Your task to perform on an android device: delete the emails in spam in the gmail app Image 0: 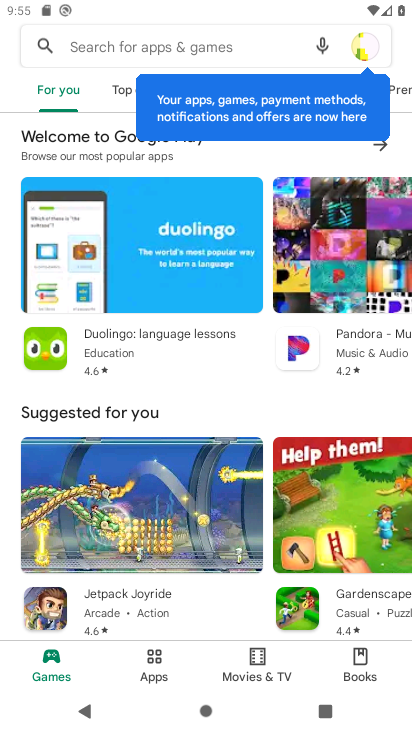
Step 0: press home button
Your task to perform on an android device: delete the emails in spam in the gmail app Image 1: 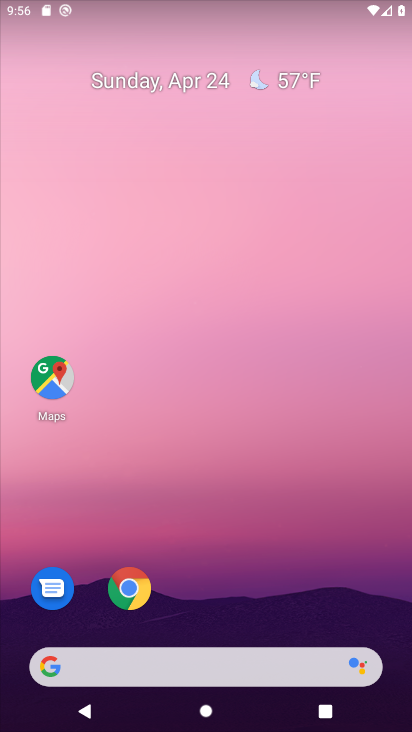
Step 1: drag from (295, 584) to (340, 50)
Your task to perform on an android device: delete the emails in spam in the gmail app Image 2: 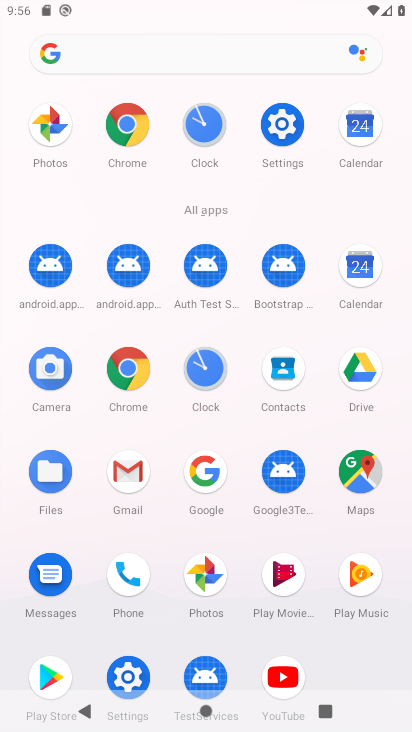
Step 2: click (128, 476)
Your task to perform on an android device: delete the emails in spam in the gmail app Image 3: 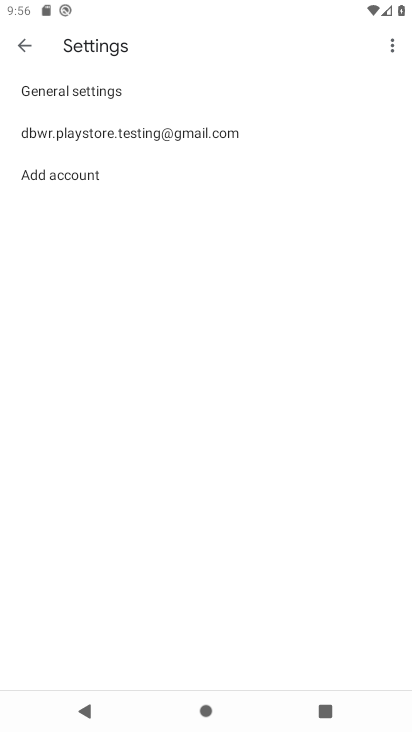
Step 3: click (30, 45)
Your task to perform on an android device: delete the emails in spam in the gmail app Image 4: 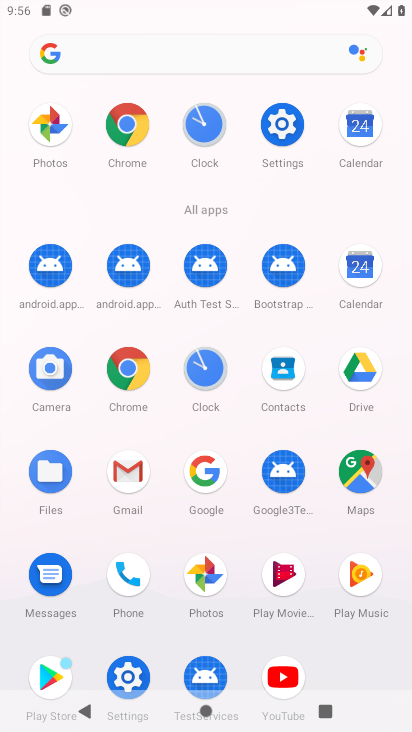
Step 4: click (127, 469)
Your task to perform on an android device: delete the emails in spam in the gmail app Image 5: 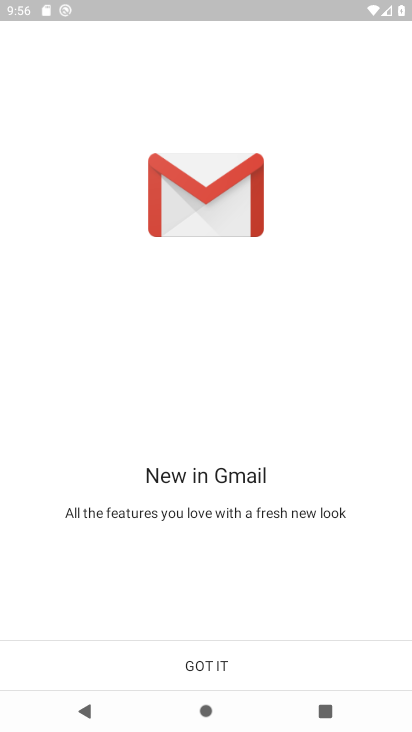
Step 5: click (209, 657)
Your task to perform on an android device: delete the emails in spam in the gmail app Image 6: 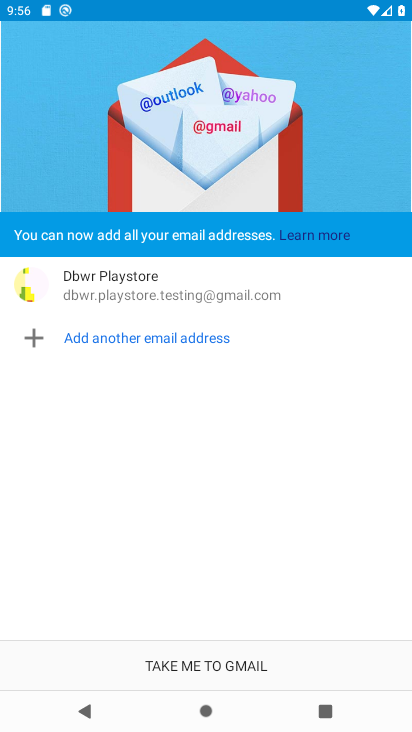
Step 6: click (209, 666)
Your task to perform on an android device: delete the emails in spam in the gmail app Image 7: 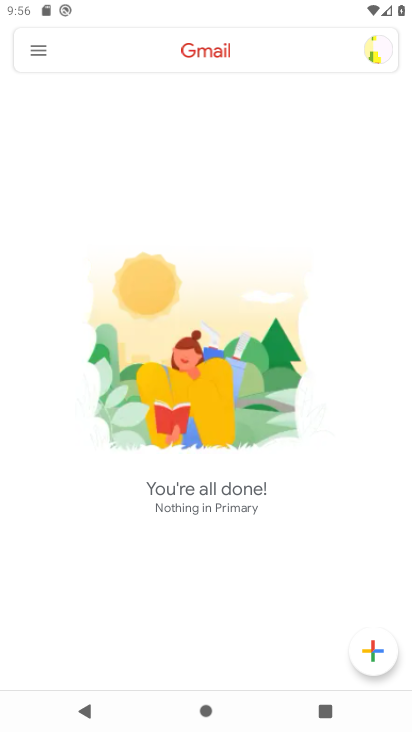
Step 7: click (43, 54)
Your task to perform on an android device: delete the emails in spam in the gmail app Image 8: 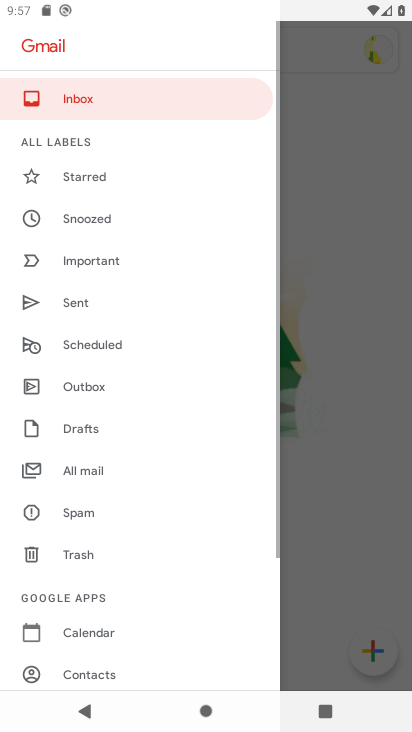
Step 8: click (91, 522)
Your task to perform on an android device: delete the emails in spam in the gmail app Image 9: 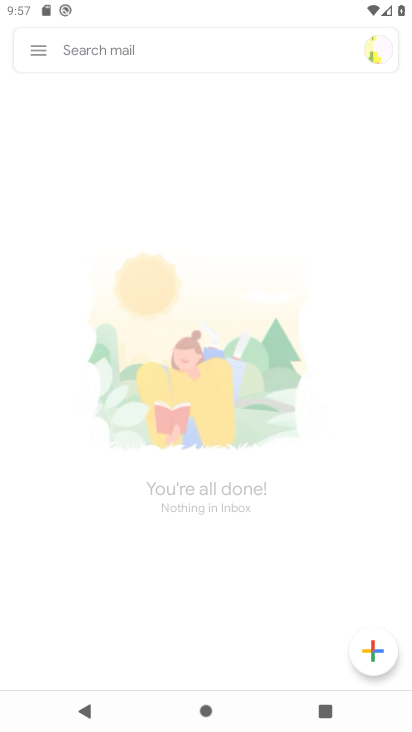
Step 9: click (94, 516)
Your task to perform on an android device: delete the emails in spam in the gmail app Image 10: 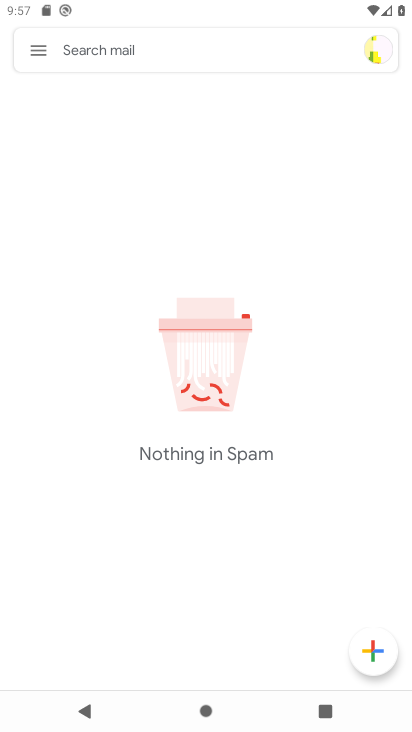
Step 10: task complete